Your task to perform on an android device: turn off notifications settings in the gmail app Image 0: 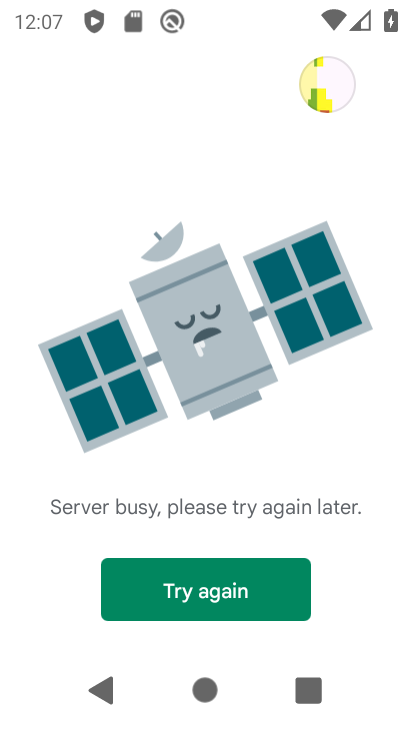
Step 0: press home button
Your task to perform on an android device: turn off notifications settings in the gmail app Image 1: 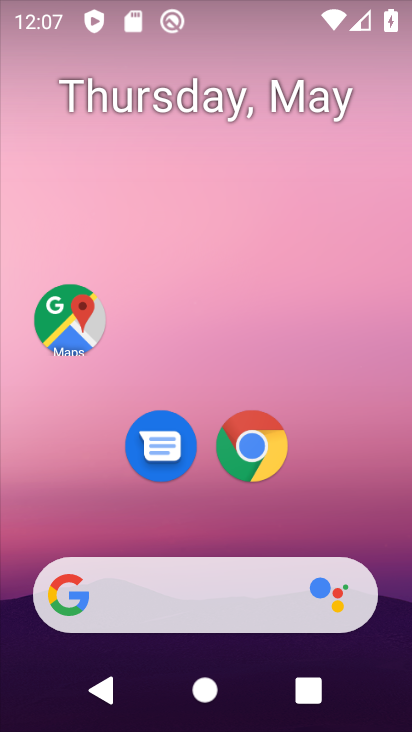
Step 1: drag from (344, 359) to (367, 18)
Your task to perform on an android device: turn off notifications settings in the gmail app Image 2: 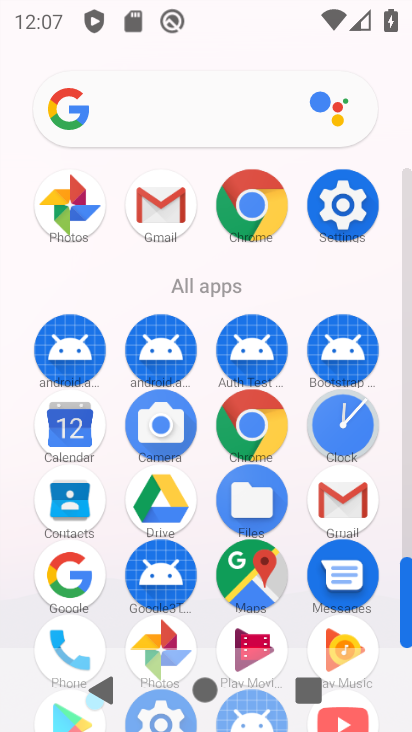
Step 2: click (154, 232)
Your task to perform on an android device: turn off notifications settings in the gmail app Image 3: 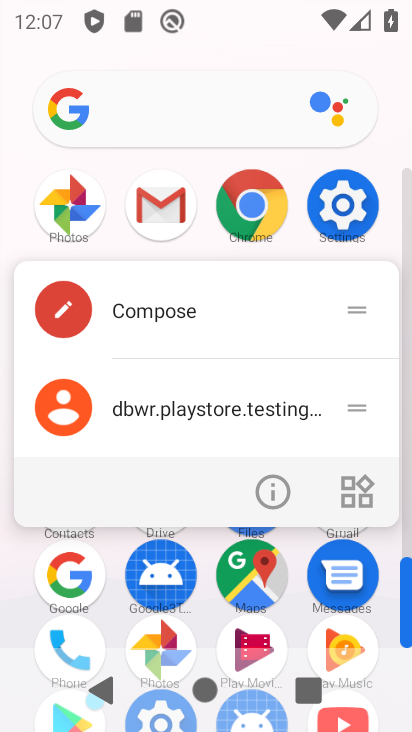
Step 3: click (283, 485)
Your task to perform on an android device: turn off notifications settings in the gmail app Image 4: 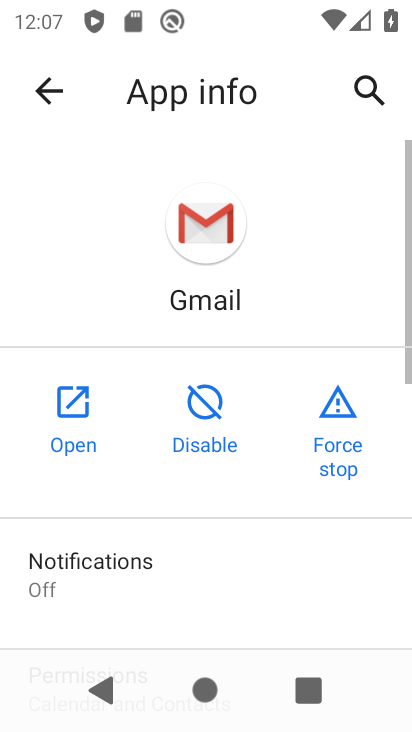
Step 4: click (128, 597)
Your task to perform on an android device: turn off notifications settings in the gmail app Image 5: 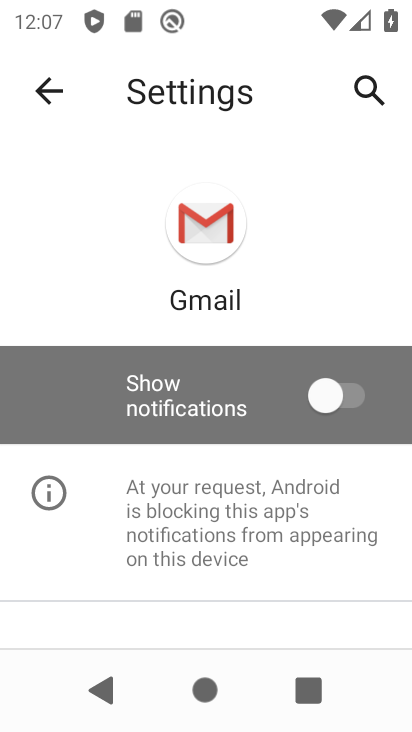
Step 5: task complete